Your task to perform on an android device: turn on translation in the chrome app Image 0: 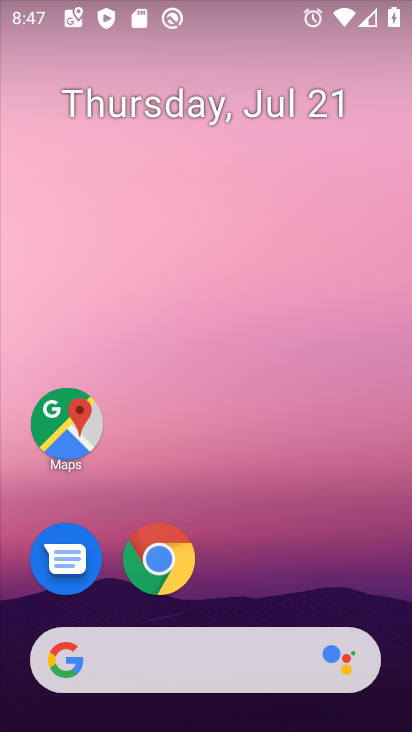
Step 0: drag from (350, 548) to (358, 49)
Your task to perform on an android device: turn on translation in the chrome app Image 1: 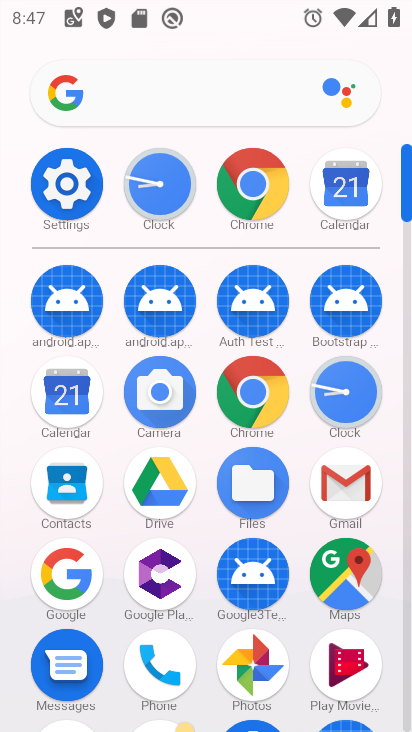
Step 1: click (270, 383)
Your task to perform on an android device: turn on translation in the chrome app Image 2: 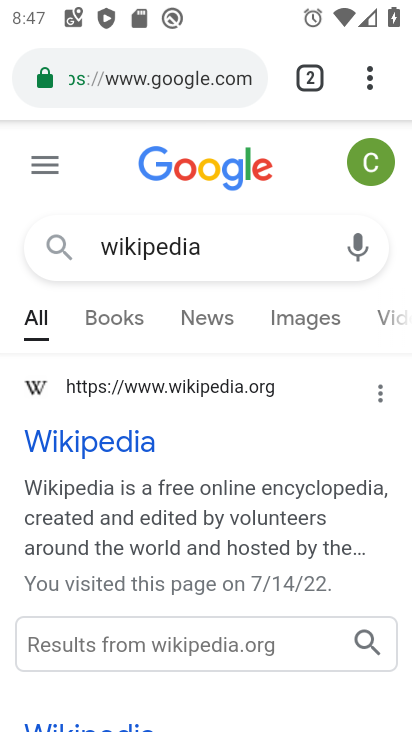
Step 2: click (369, 88)
Your task to perform on an android device: turn on translation in the chrome app Image 3: 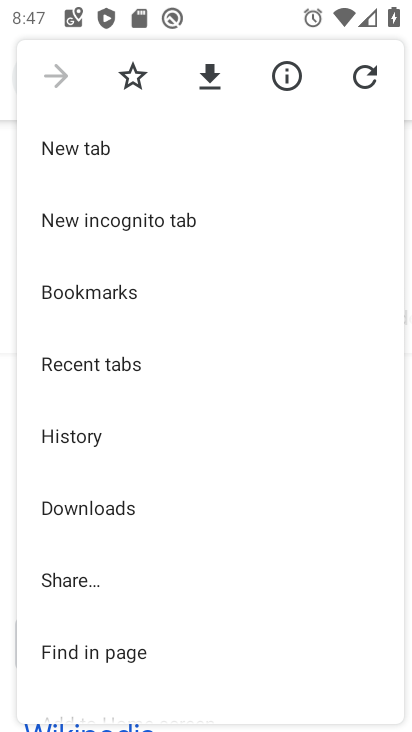
Step 3: drag from (302, 457) to (300, 301)
Your task to perform on an android device: turn on translation in the chrome app Image 4: 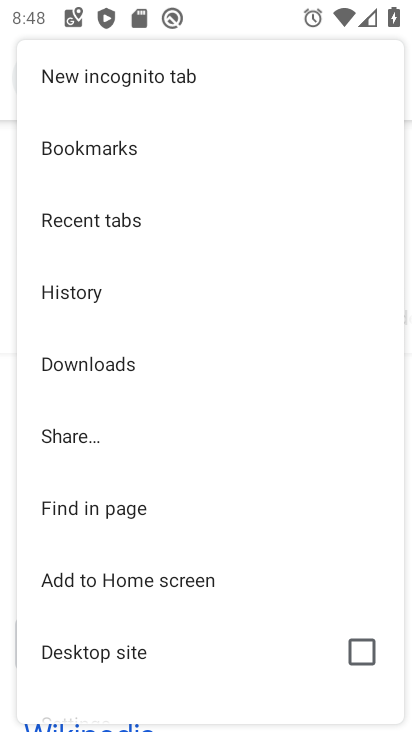
Step 4: drag from (273, 492) to (260, 314)
Your task to perform on an android device: turn on translation in the chrome app Image 5: 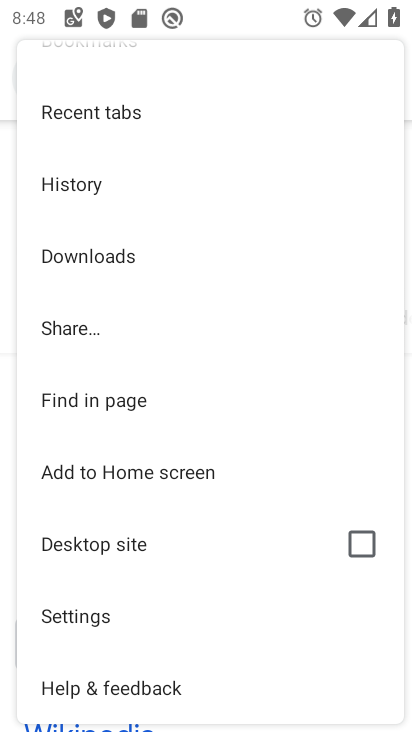
Step 5: drag from (254, 523) to (256, 403)
Your task to perform on an android device: turn on translation in the chrome app Image 6: 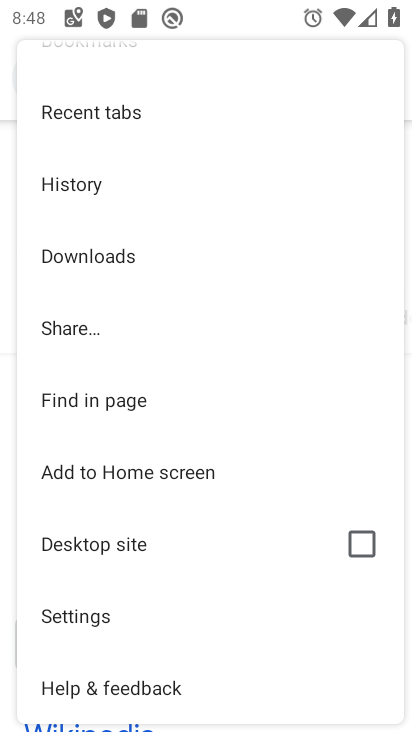
Step 6: click (138, 623)
Your task to perform on an android device: turn on translation in the chrome app Image 7: 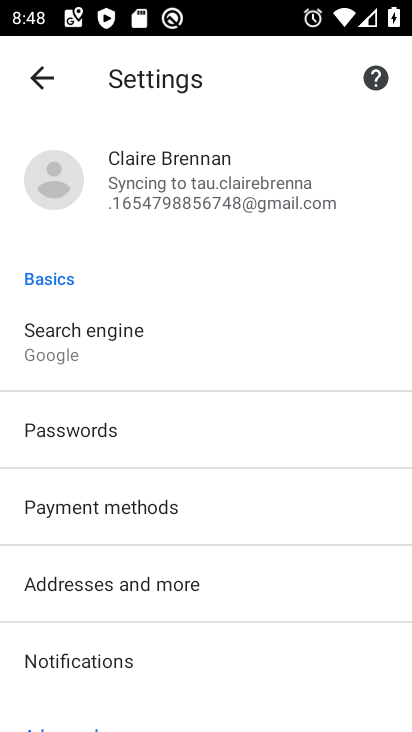
Step 7: drag from (301, 561) to (306, 417)
Your task to perform on an android device: turn on translation in the chrome app Image 8: 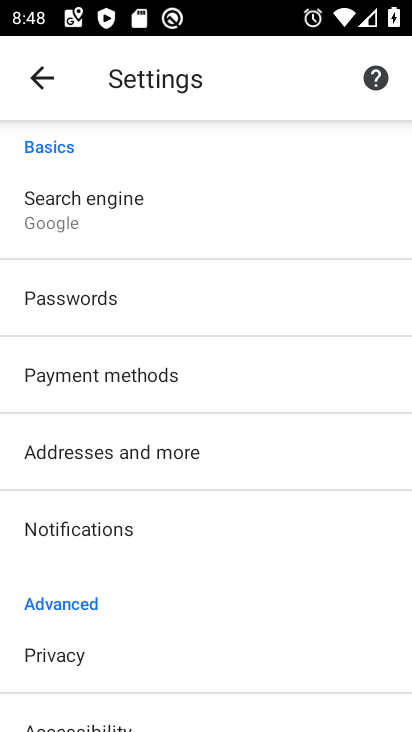
Step 8: drag from (268, 568) to (272, 446)
Your task to perform on an android device: turn on translation in the chrome app Image 9: 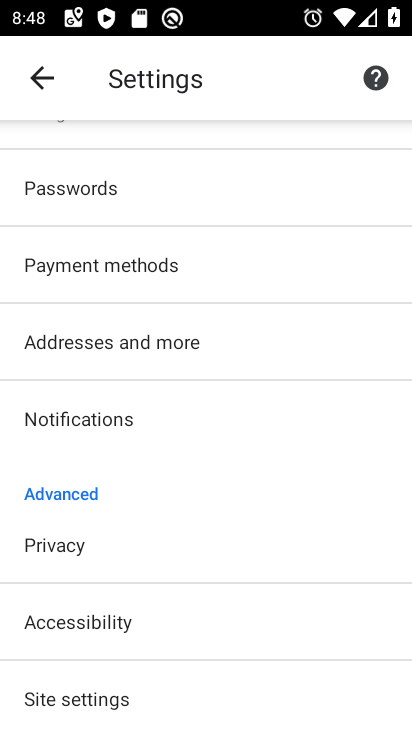
Step 9: drag from (230, 649) to (235, 478)
Your task to perform on an android device: turn on translation in the chrome app Image 10: 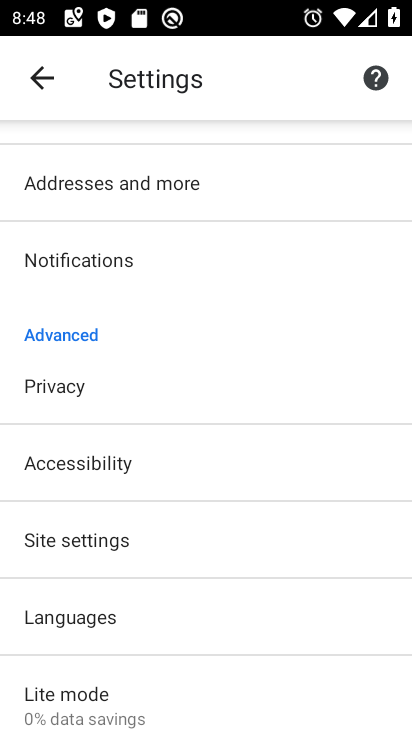
Step 10: click (241, 612)
Your task to perform on an android device: turn on translation in the chrome app Image 11: 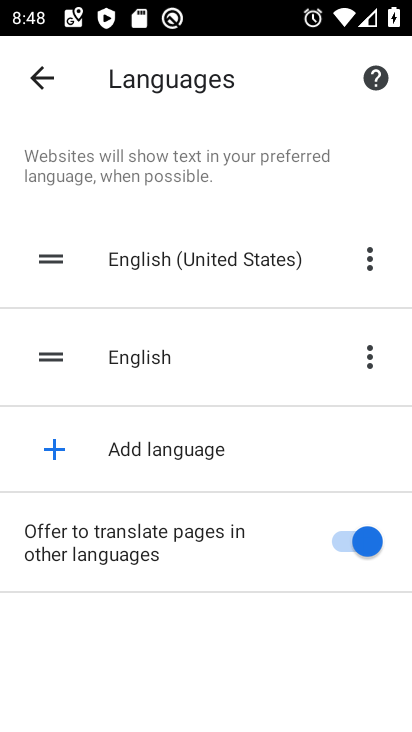
Step 11: task complete